Your task to perform on an android device: turn off airplane mode Image 0: 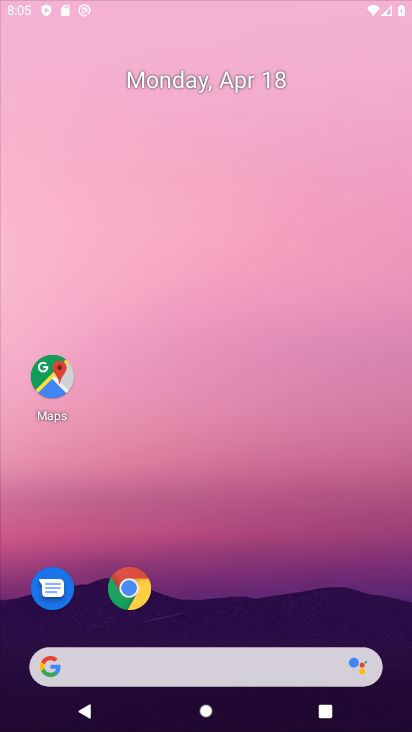
Step 0: drag from (252, 277) to (252, 85)
Your task to perform on an android device: turn off airplane mode Image 1: 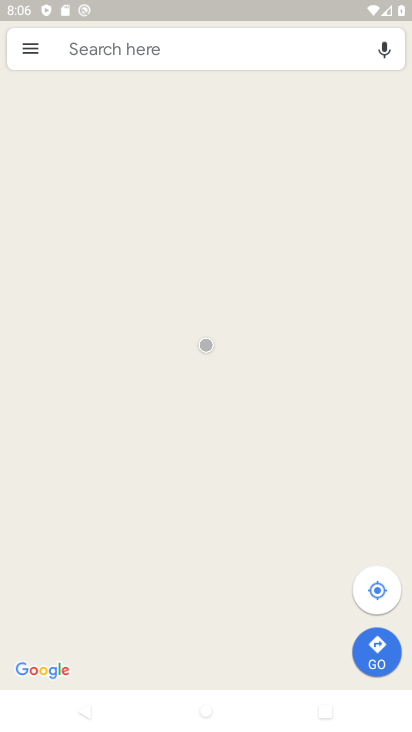
Step 1: press home button
Your task to perform on an android device: turn off airplane mode Image 2: 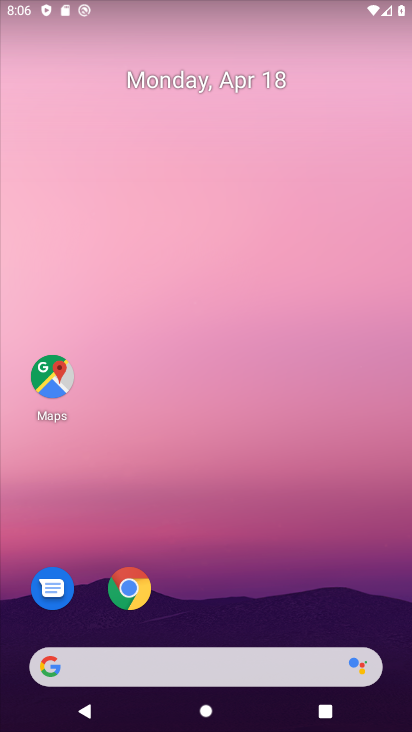
Step 2: drag from (234, 591) to (243, 2)
Your task to perform on an android device: turn off airplane mode Image 3: 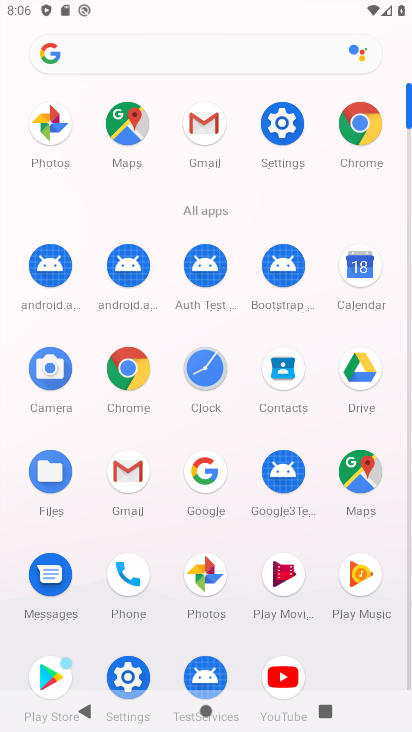
Step 3: click (280, 125)
Your task to perform on an android device: turn off airplane mode Image 4: 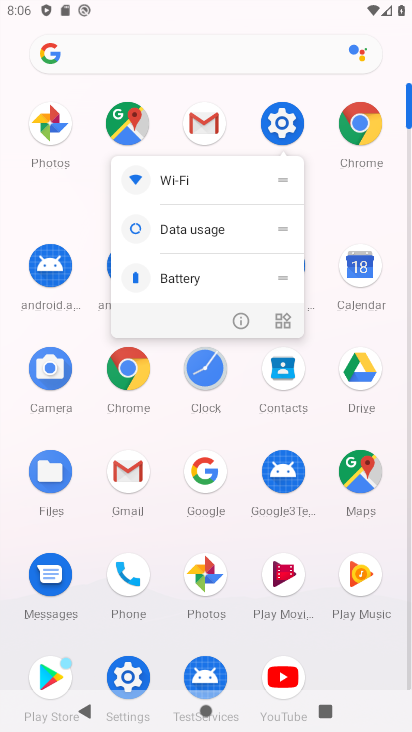
Step 4: click (273, 130)
Your task to perform on an android device: turn off airplane mode Image 5: 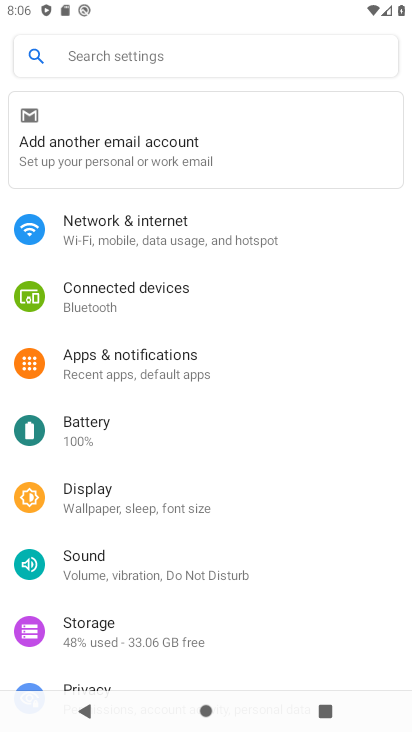
Step 5: click (128, 237)
Your task to perform on an android device: turn off airplane mode Image 6: 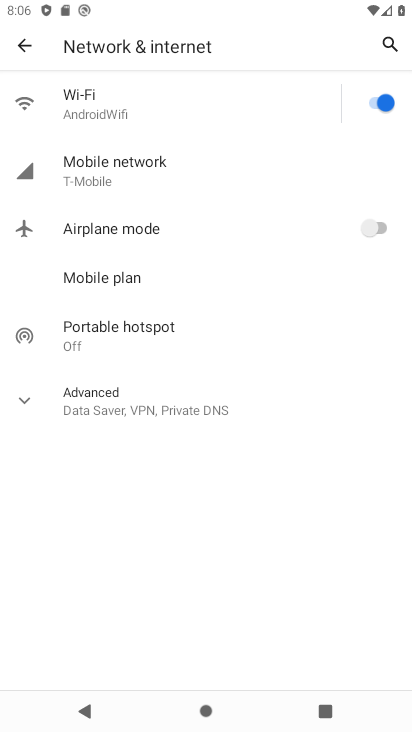
Step 6: task complete